Your task to perform on an android device: Show me recent news Image 0: 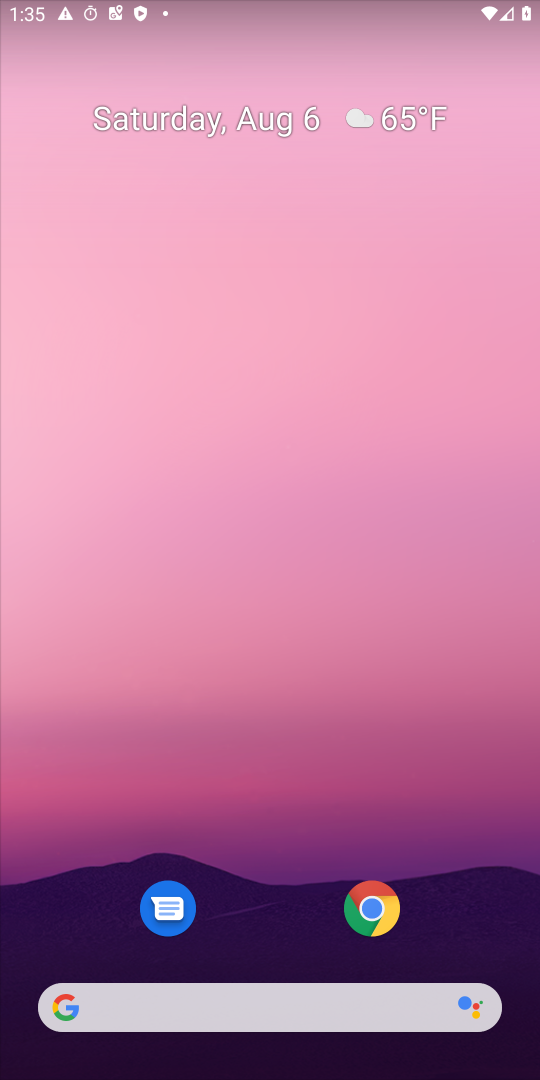
Step 0: click (246, 1002)
Your task to perform on an android device: Show me recent news Image 1: 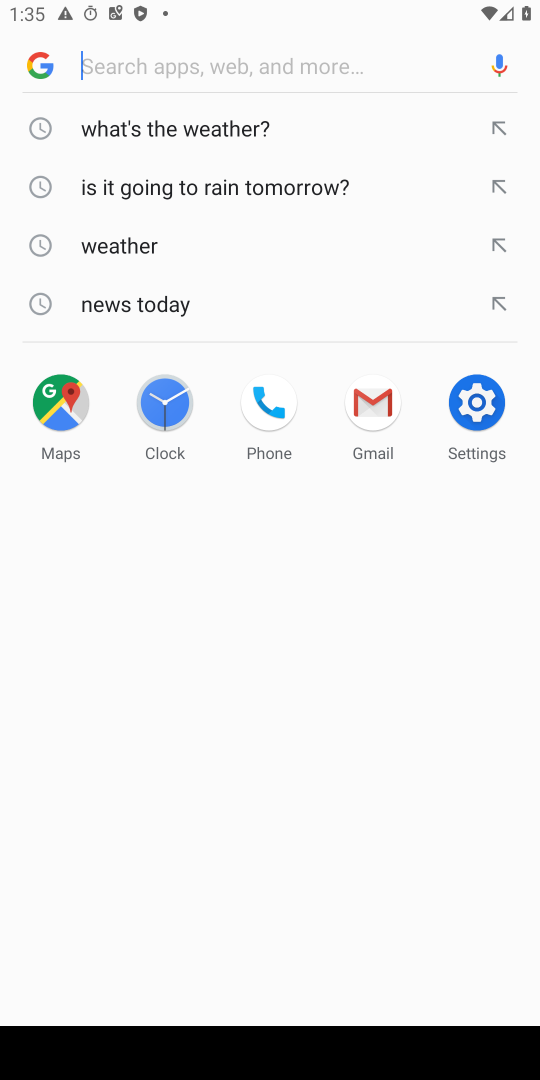
Step 1: type "recent news"
Your task to perform on an android device: Show me recent news Image 2: 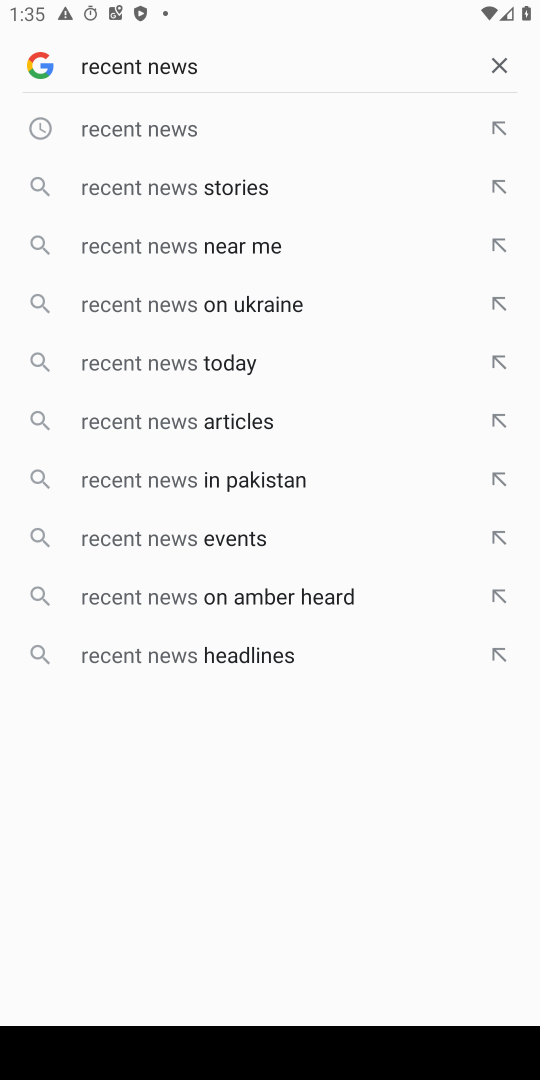
Step 2: click (144, 127)
Your task to perform on an android device: Show me recent news Image 3: 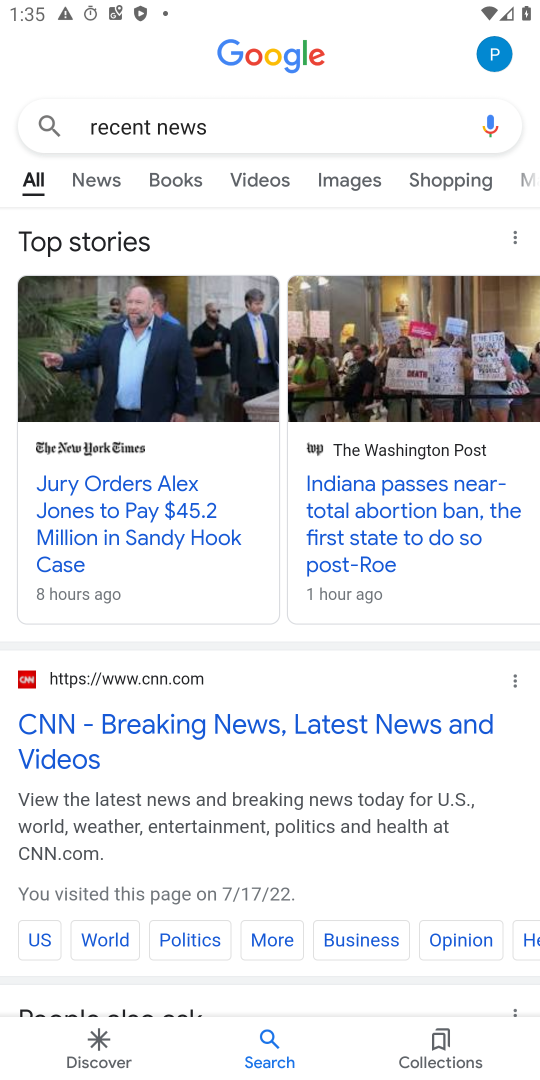
Step 3: click (99, 184)
Your task to perform on an android device: Show me recent news Image 4: 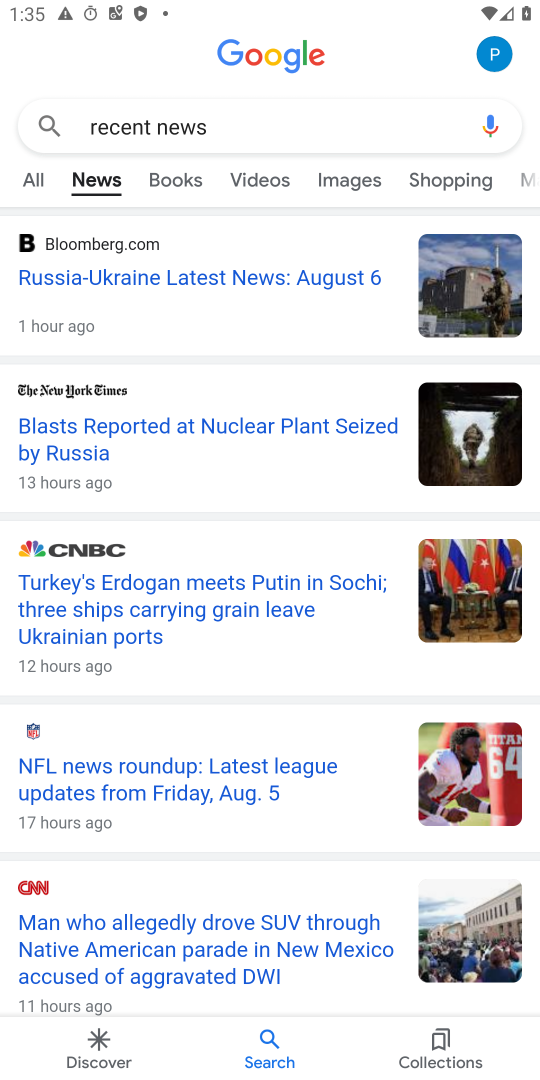
Step 4: task complete